Your task to perform on an android device: toggle pop-ups in chrome Image 0: 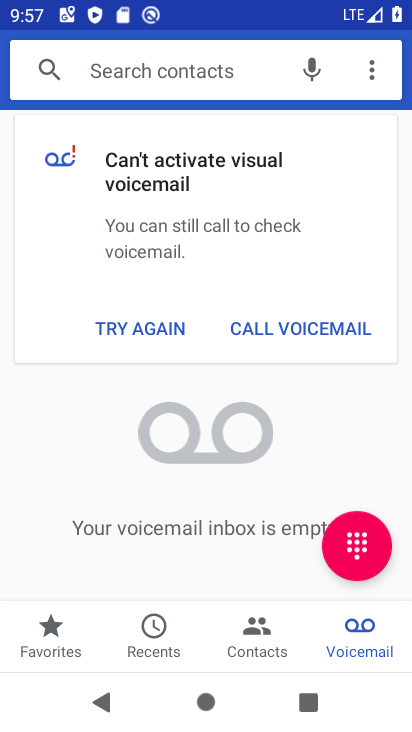
Step 0: press home button
Your task to perform on an android device: toggle pop-ups in chrome Image 1: 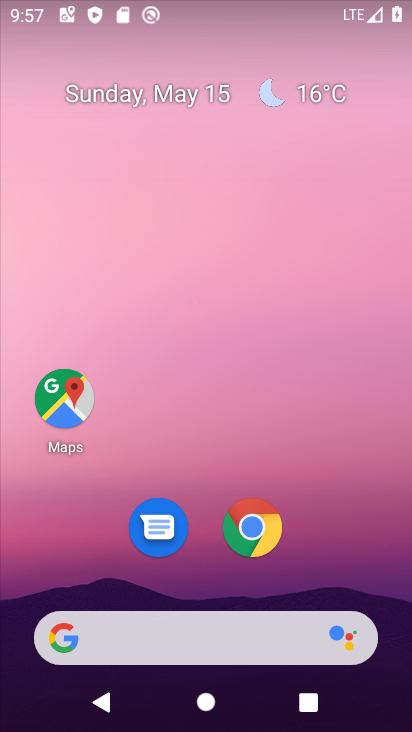
Step 1: click (249, 536)
Your task to perform on an android device: toggle pop-ups in chrome Image 2: 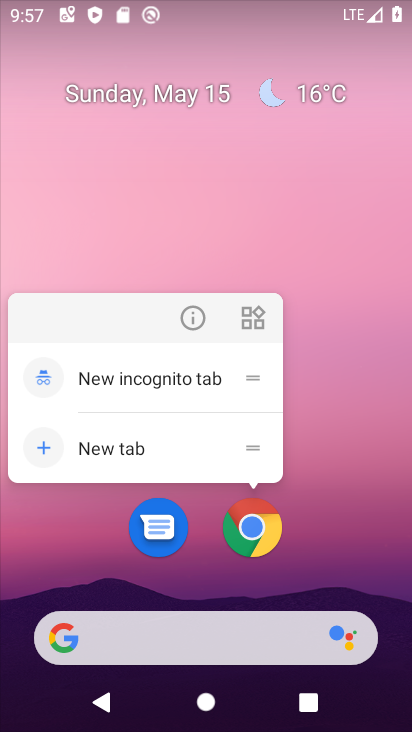
Step 2: click (248, 538)
Your task to perform on an android device: toggle pop-ups in chrome Image 3: 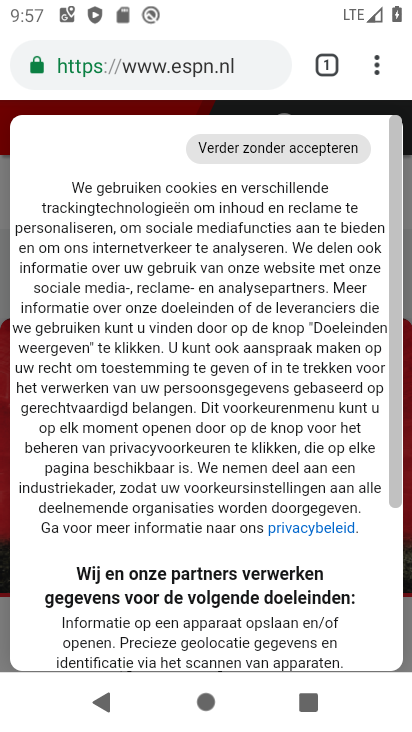
Step 3: click (376, 74)
Your task to perform on an android device: toggle pop-ups in chrome Image 4: 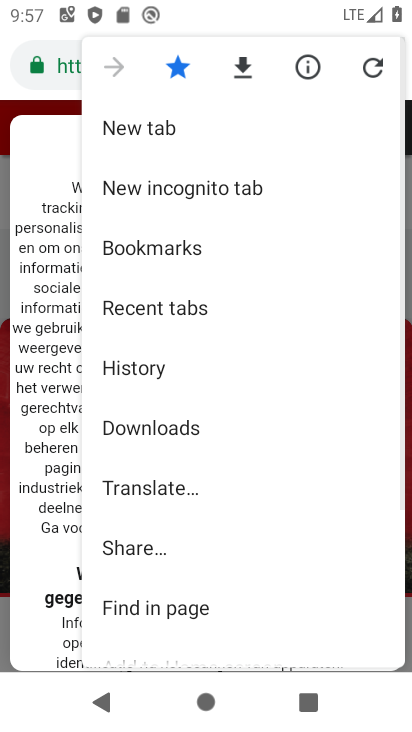
Step 4: drag from (259, 566) to (279, 180)
Your task to perform on an android device: toggle pop-ups in chrome Image 5: 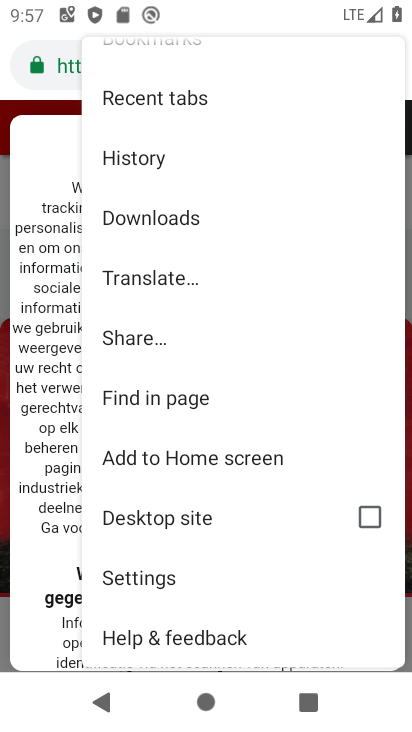
Step 5: click (142, 577)
Your task to perform on an android device: toggle pop-ups in chrome Image 6: 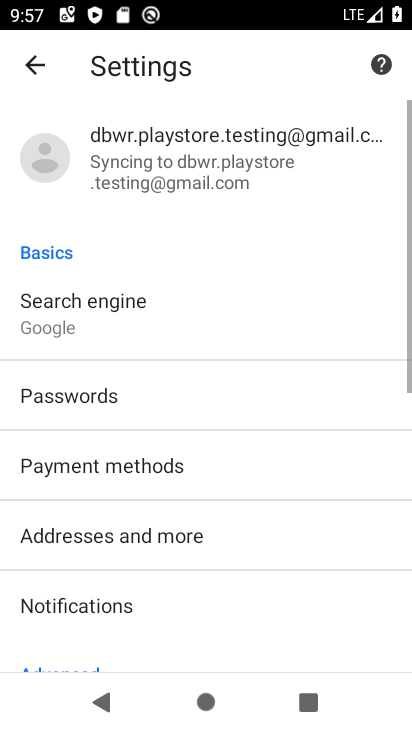
Step 6: drag from (163, 564) to (226, 96)
Your task to perform on an android device: toggle pop-ups in chrome Image 7: 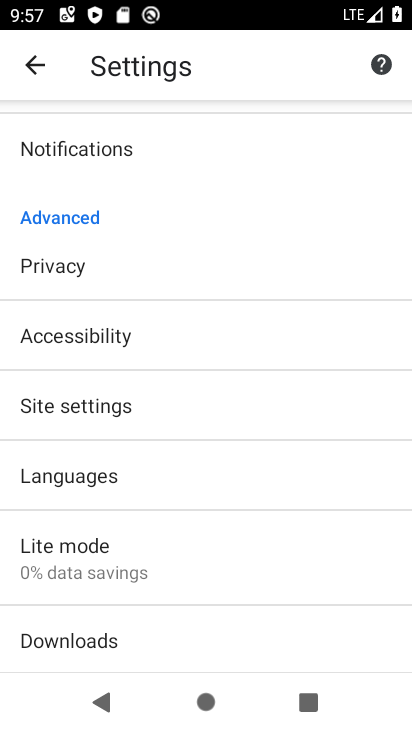
Step 7: click (91, 403)
Your task to perform on an android device: toggle pop-ups in chrome Image 8: 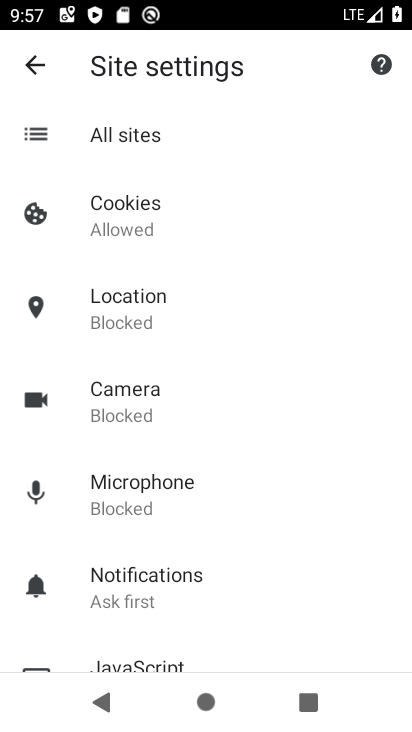
Step 8: drag from (299, 568) to (316, 247)
Your task to perform on an android device: toggle pop-ups in chrome Image 9: 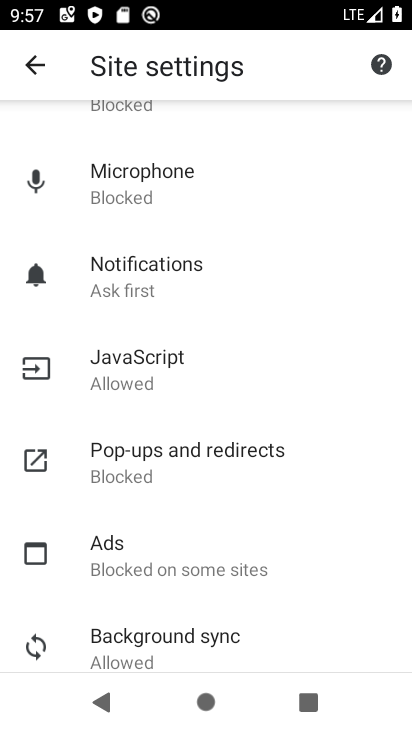
Step 9: click (121, 461)
Your task to perform on an android device: toggle pop-ups in chrome Image 10: 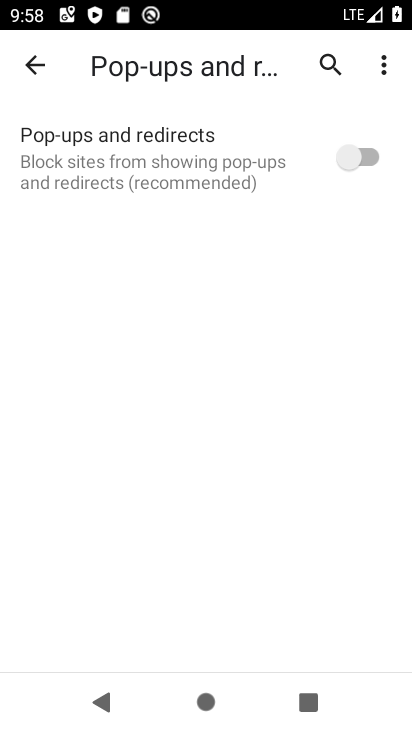
Step 10: click (361, 160)
Your task to perform on an android device: toggle pop-ups in chrome Image 11: 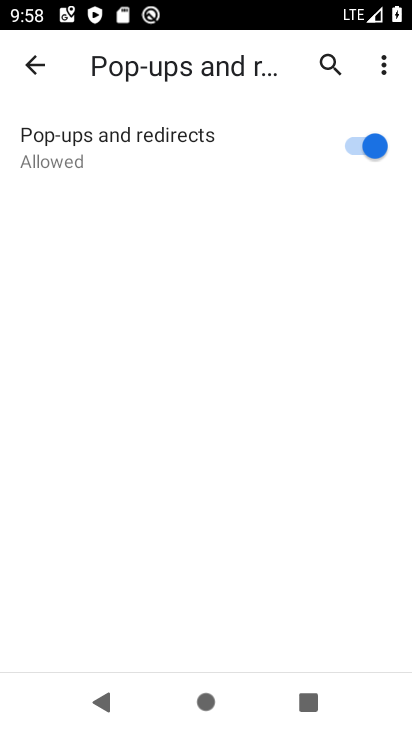
Step 11: task complete